Your task to perform on an android device: turn on improve location accuracy Image 0: 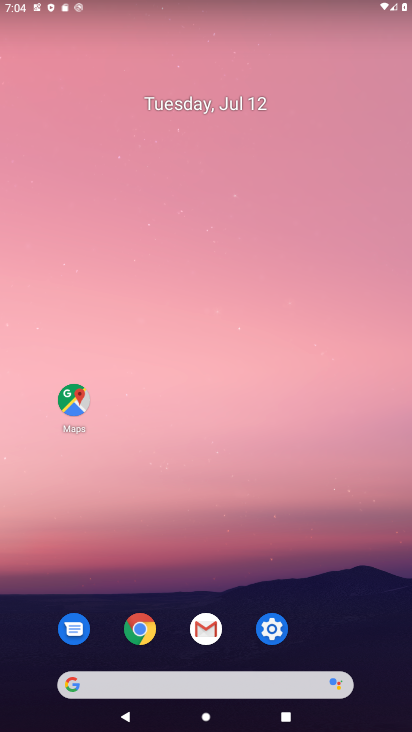
Step 0: click (281, 621)
Your task to perform on an android device: turn on improve location accuracy Image 1: 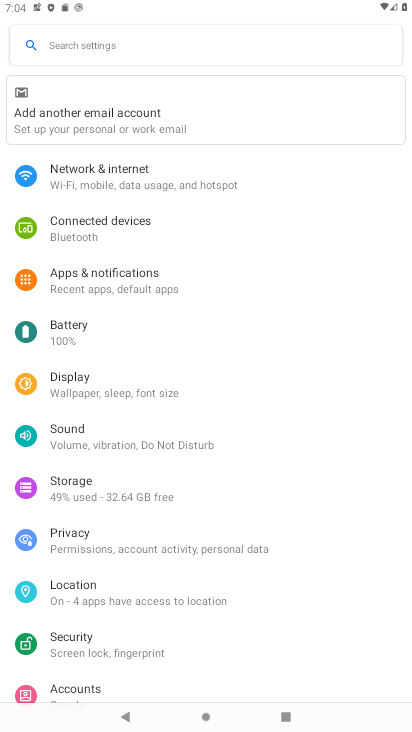
Step 1: click (109, 591)
Your task to perform on an android device: turn on improve location accuracy Image 2: 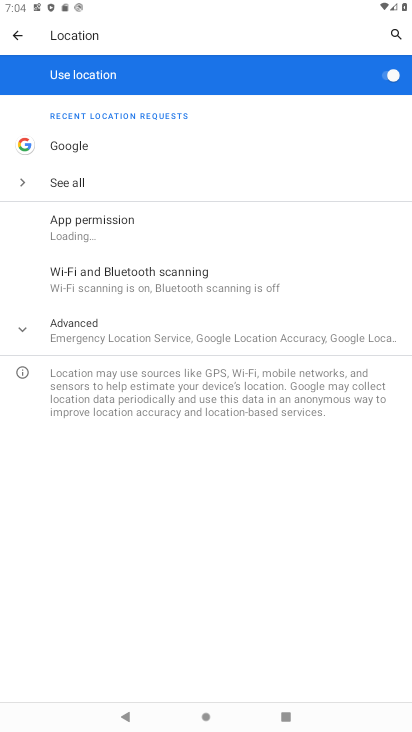
Step 2: click (68, 321)
Your task to perform on an android device: turn on improve location accuracy Image 3: 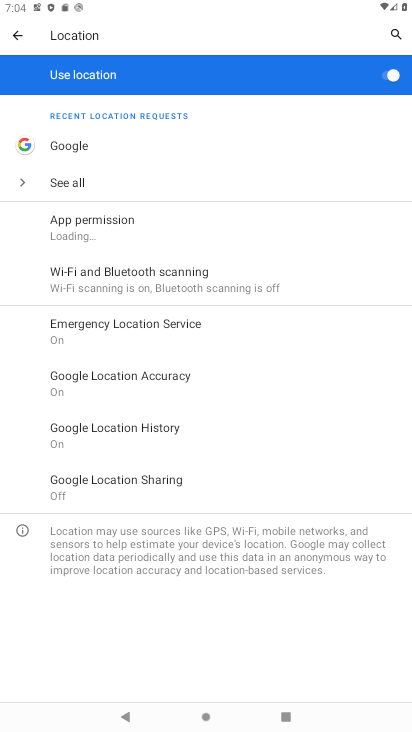
Step 3: click (71, 385)
Your task to perform on an android device: turn on improve location accuracy Image 4: 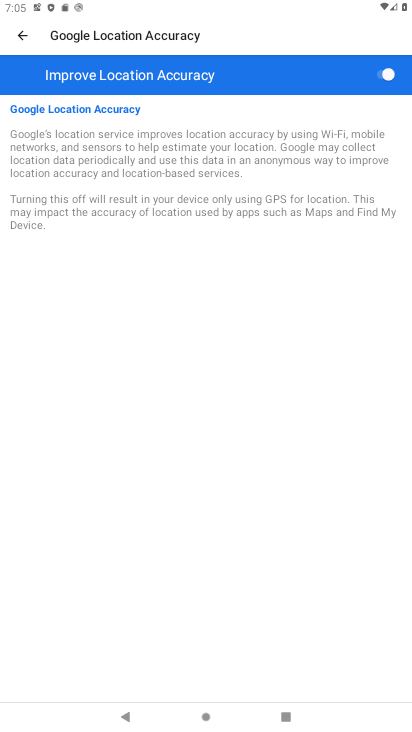
Step 4: click (397, 66)
Your task to perform on an android device: turn on improve location accuracy Image 5: 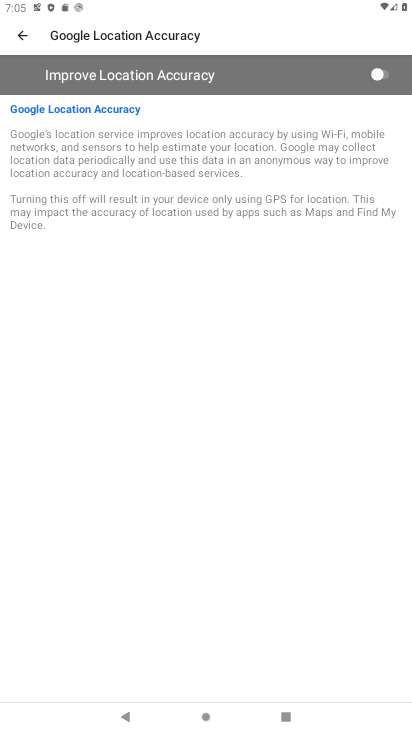
Step 5: click (385, 84)
Your task to perform on an android device: turn on improve location accuracy Image 6: 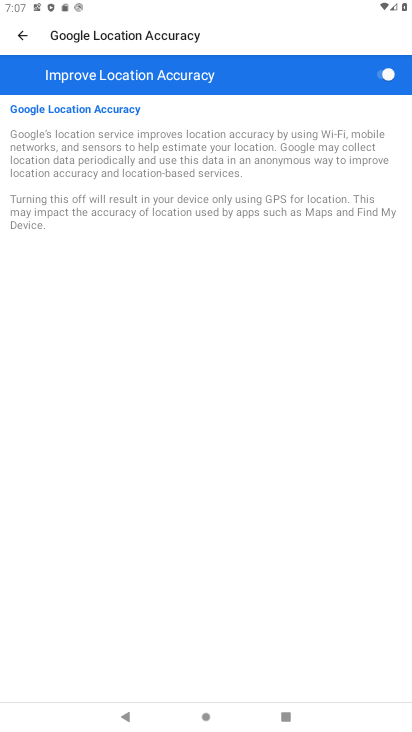
Step 6: task complete